Your task to perform on an android device: Go to settings Image 0: 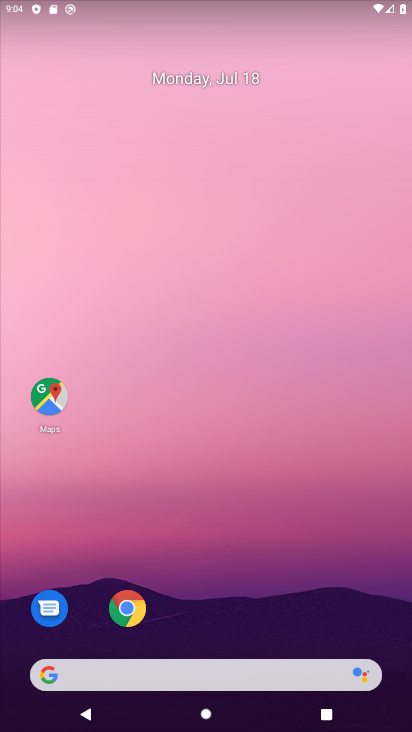
Step 0: press home button
Your task to perform on an android device: Go to settings Image 1: 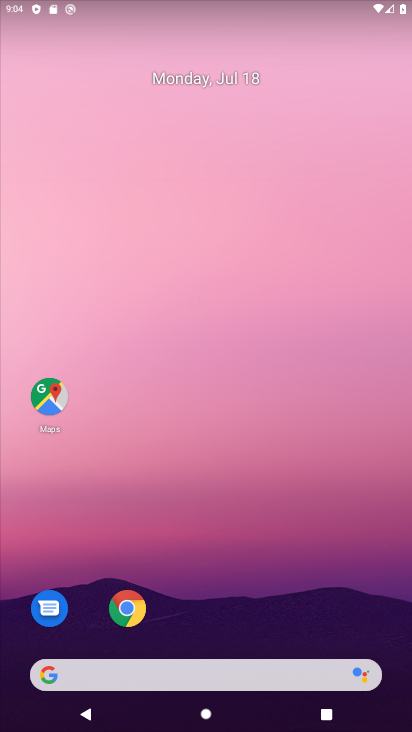
Step 1: drag from (214, 637) to (210, 4)
Your task to perform on an android device: Go to settings Image 2: 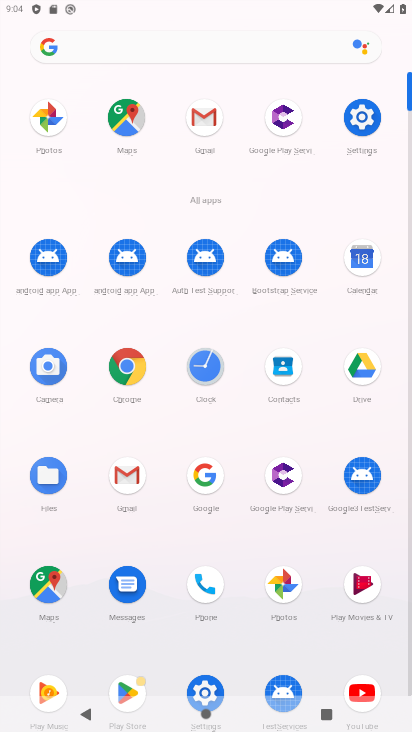
Step 2: click (359, 114)
Your task to perform on an android device: Go to settings Image 3: 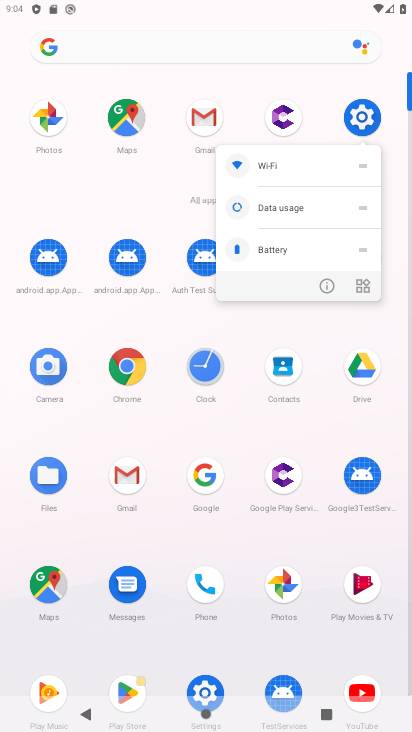
Step 3: click (362, 115)
Your task to perform on an android device: Go to settings Image 4: 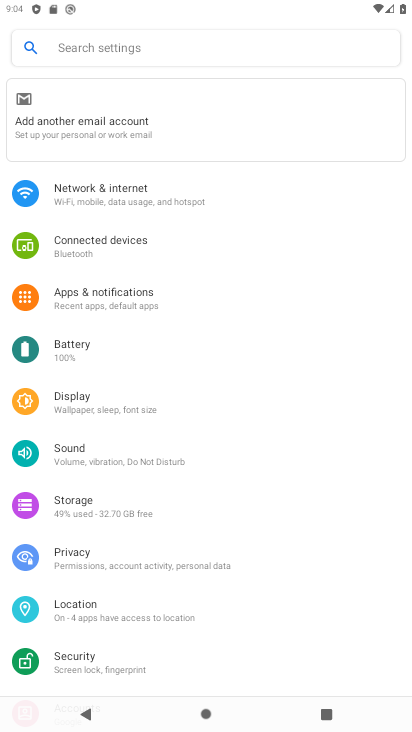
Step 4: task complete